Your task to perform on an android device: find which apps use the phone's location Image 0: 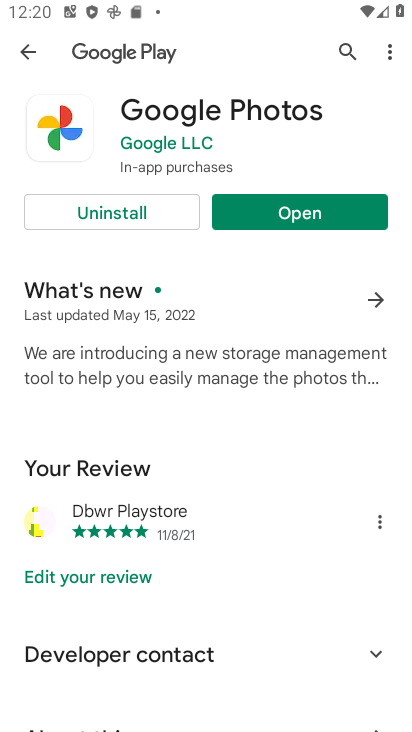
Step 0: press home button
Your task to perform on an android device: find which apps use the phone's location Image 1: 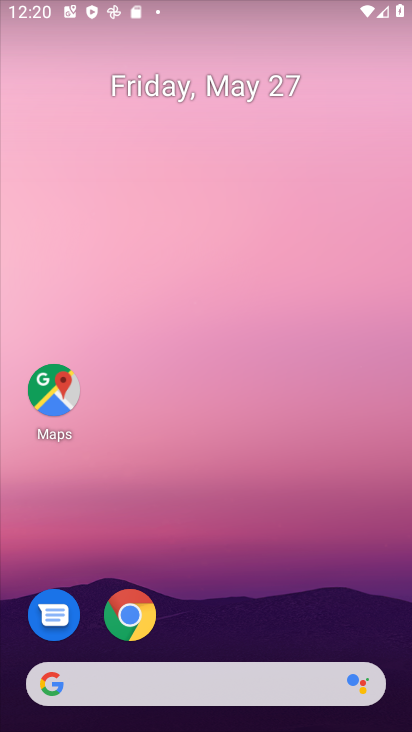
Step 1: drag from (221, 654) to (240, 91)
Your task to perform on an android device: find which apps use the phone's location Image 2: 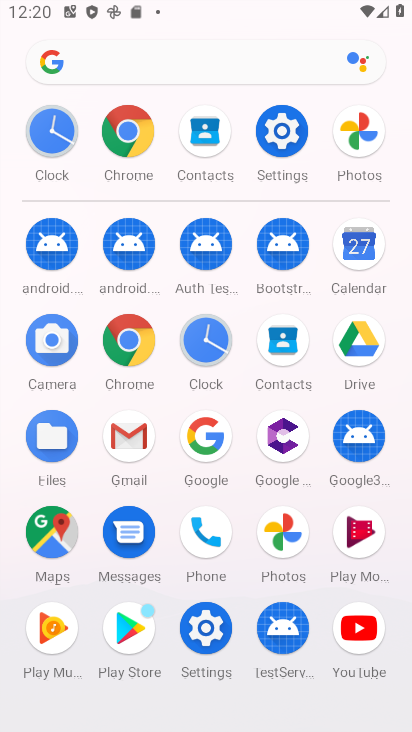
Step 2: click (286, 144)
Your task to perform on an android device: find which apps use the phone's location Image 3: 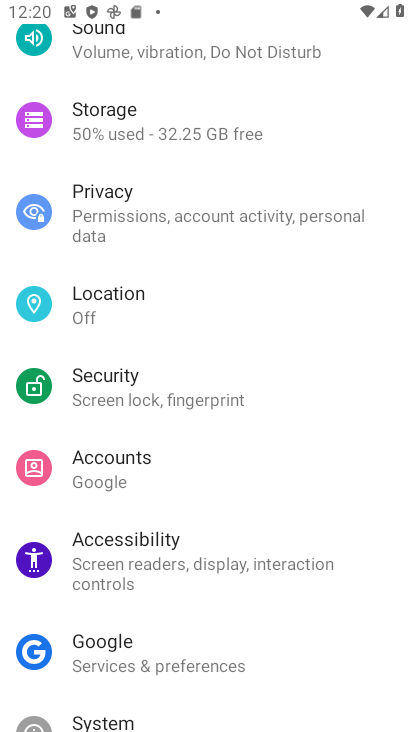
Step 3: click (119, 294)
Your task to perform on an android device: find which apps use the phone's location Image 4: 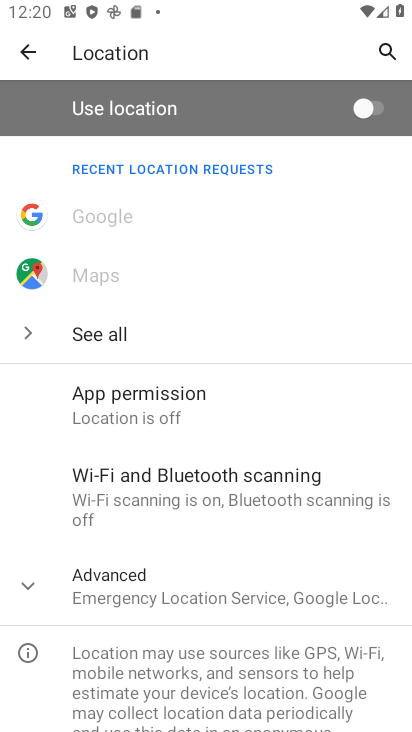
Step 4: click (118, 391)
Your task to perform on an android device: find which apps use the phone's location Image 5: 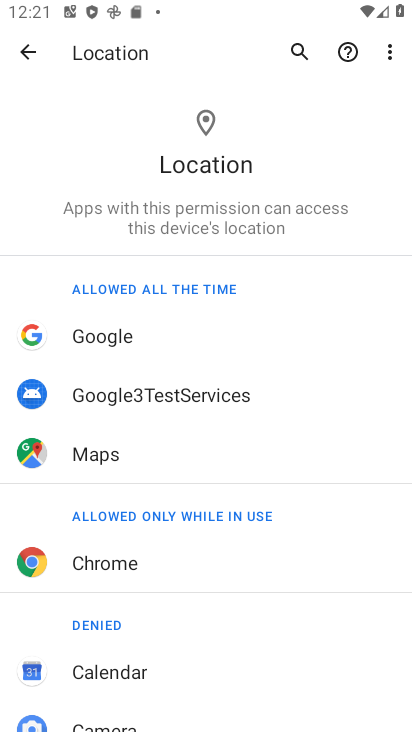
Step 5: task complete